Your task to perform on an android device: What's the weather going to be this weekend? Image 0: 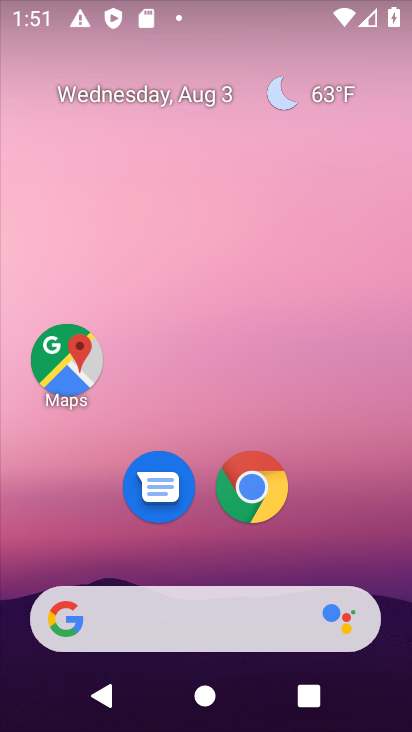
Step 0: click (266, 497)
Your task to perform on an android device: What's the weather going to be this weekend? Image 1: 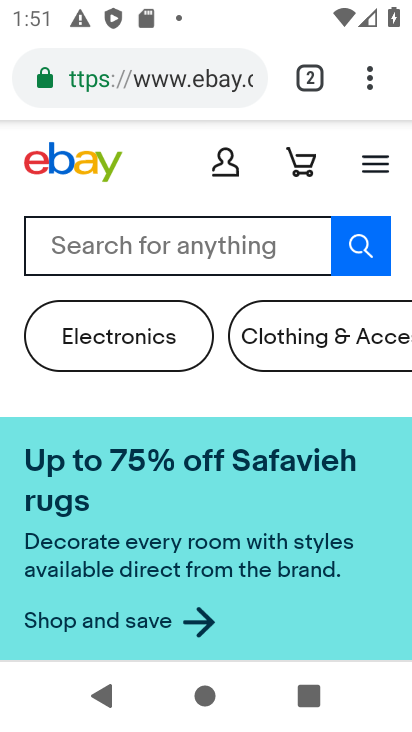
Step 1: click (160, 75)
Your task to perform on an android device: What's the weather going to be this weekend? Image 2: 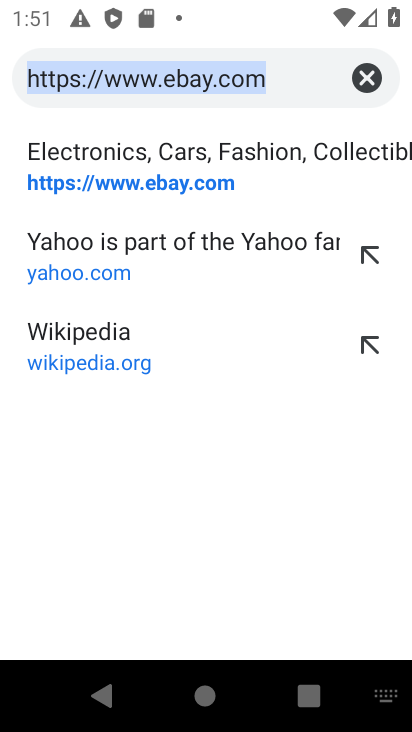
Step 2: click (371, 76)
Your task to perform on an android device: What's the weather going to be this weekend? Image 3: 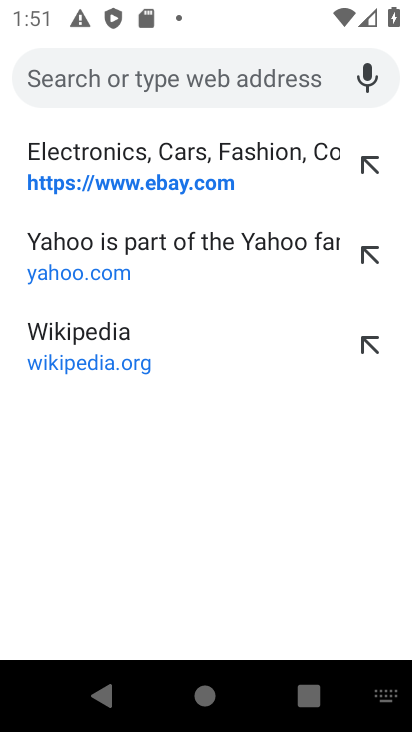
Step 3: type "What's the weather going to be this weekend?"
Your task to perform on an android device: What's the weather going to be this weekend? Image 4: 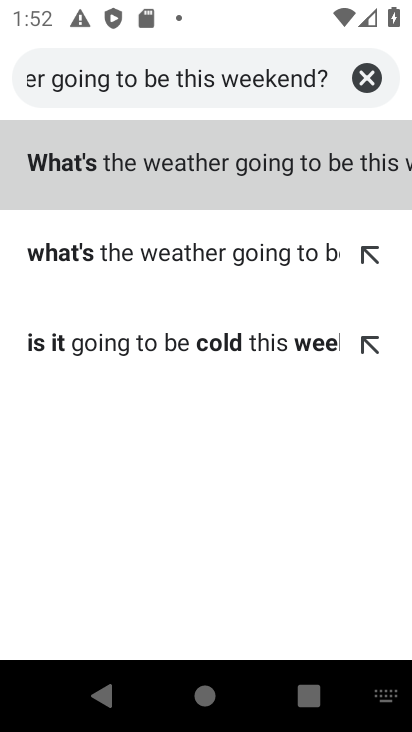
Step 4: click (225, 180)
Your task to perform on an android device: What's the weather going to be this weekend? Image 5: 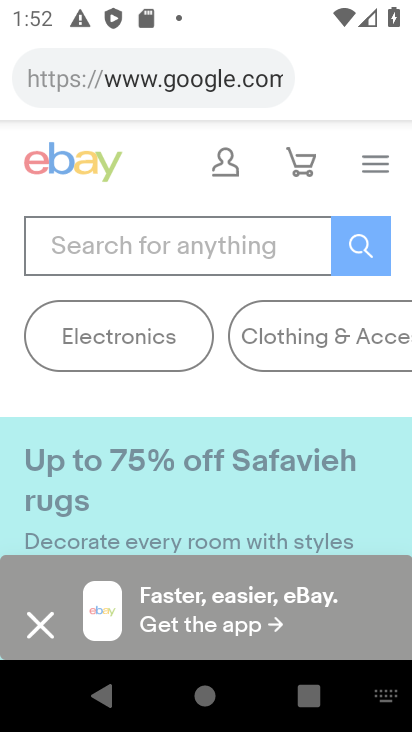
Step 5: click (225, 180)
Your task to perform on an android device: What's the weather going to be this weekend? Image 6: 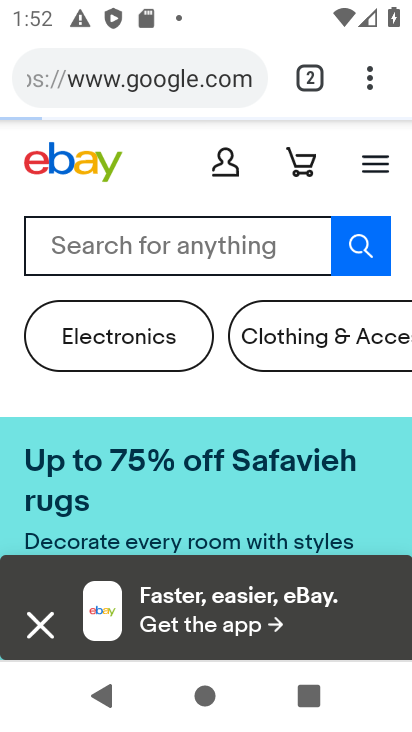
Step 6: click (225, 180)
Your task to perform on an android device: What's the weather going to be this weekend? Image 7: 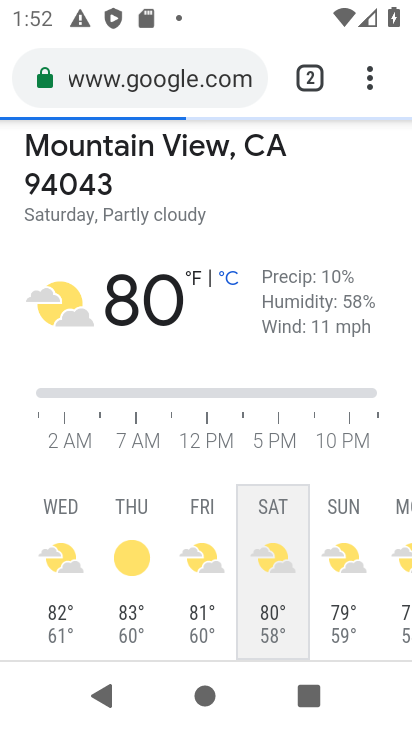
Step 7: task complete